Your task to perform on an android device: toggle improve location accuracy Image 0: 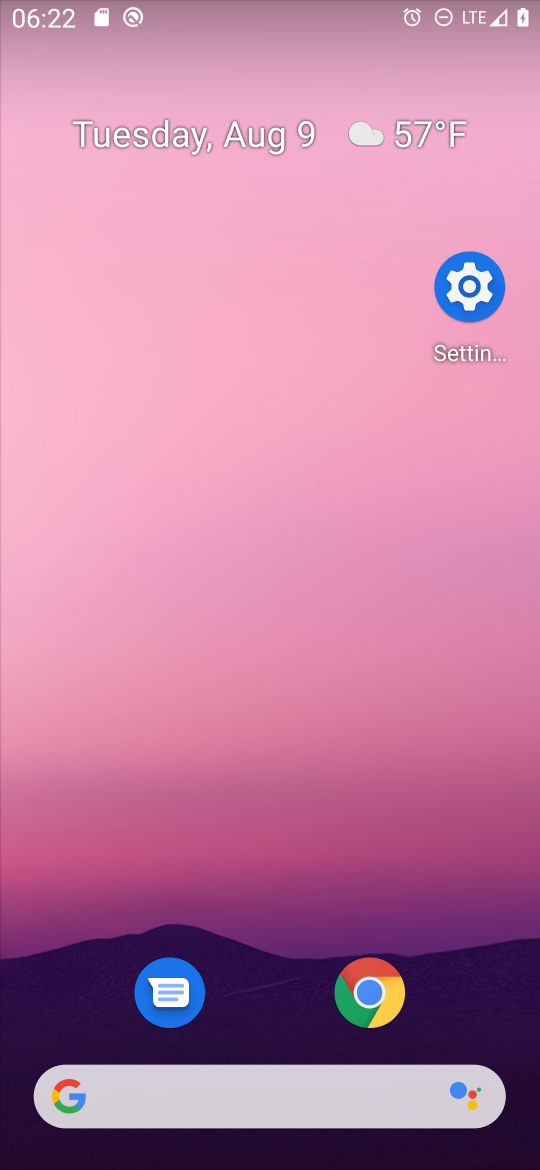
Step 0: drag from (269, 1085) to (351, 341)
Your task to perform on an android device: toggle improve location accuracy Image 1: 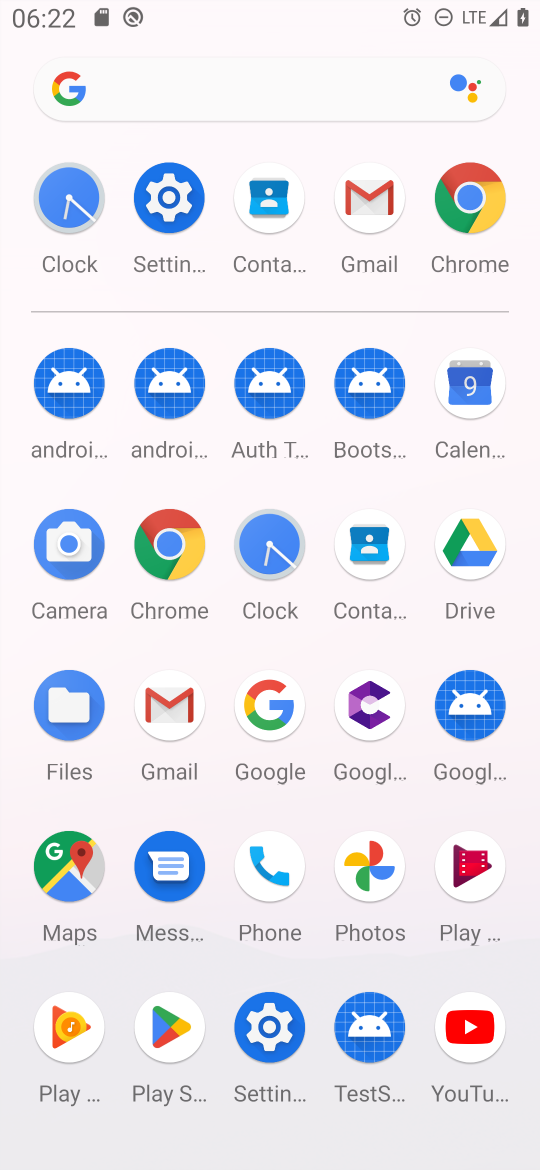
Step 1: click (167, 203)
Your task to perform on an android device: toggle improve location accuracy Image 2: 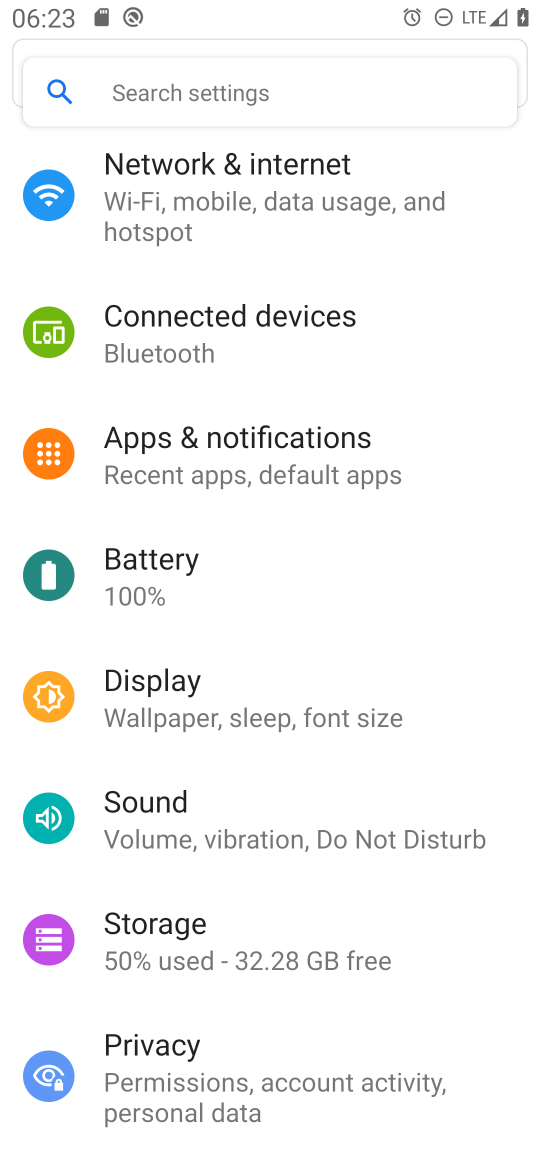
Step 2: drag from (491, 1006) to (442, 446)
Your task to perform on an android device: toggle improve location accuracy Image 3: 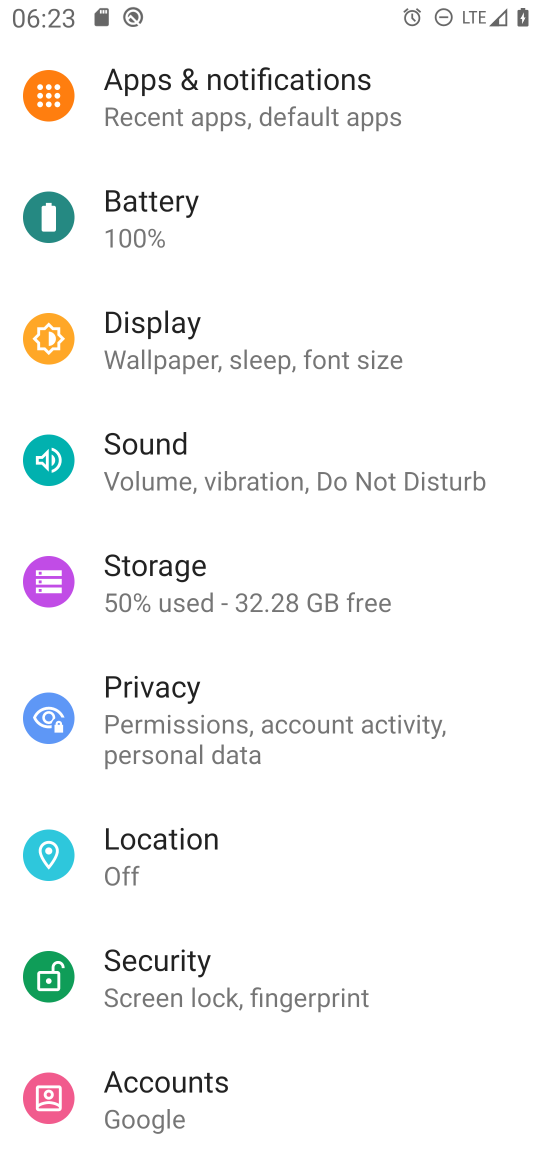
Step 3: click (208, 857)
Your task to perform on an android device: toggle improve location accuracy Image 4: 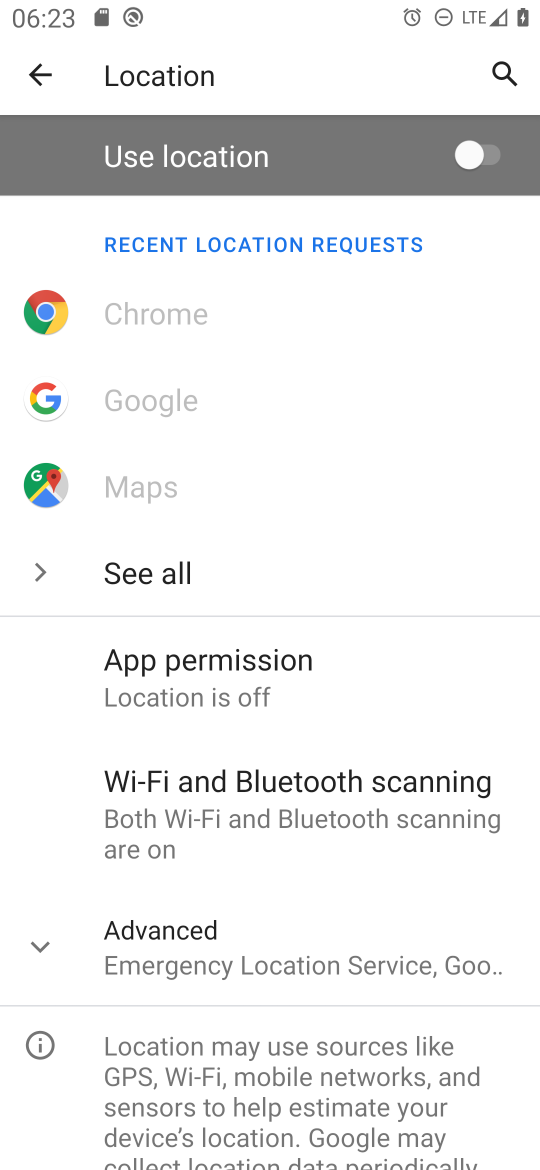
Step 4: click (265, 967)
Your task to perform on an android device: toggle improve location accuracy Image 5: 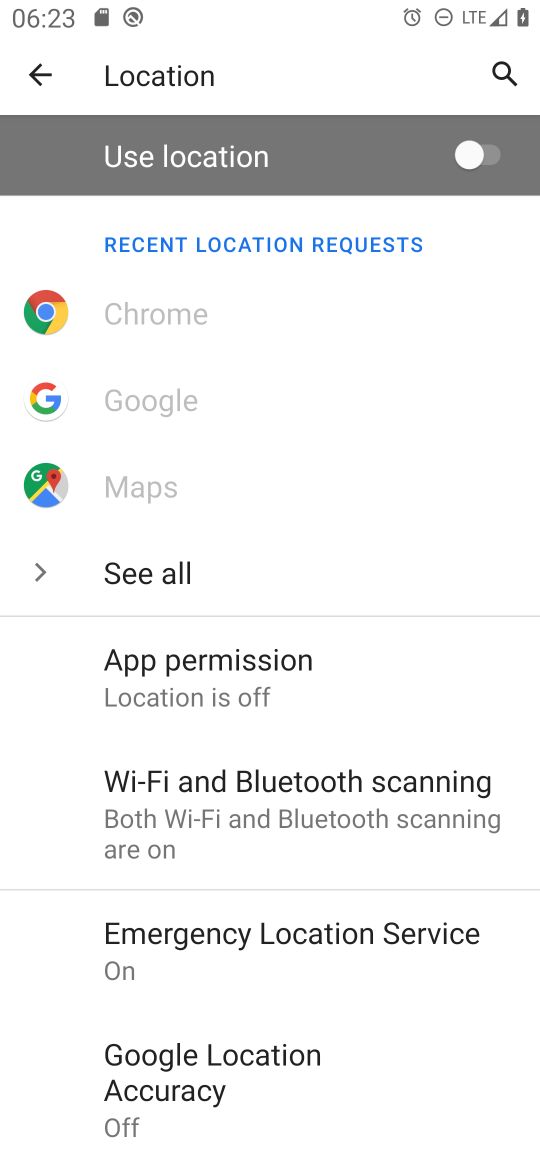
Step 5: click (262, 1071)
Your task to perform on an android device: toggle improve location accuracy Image 6: 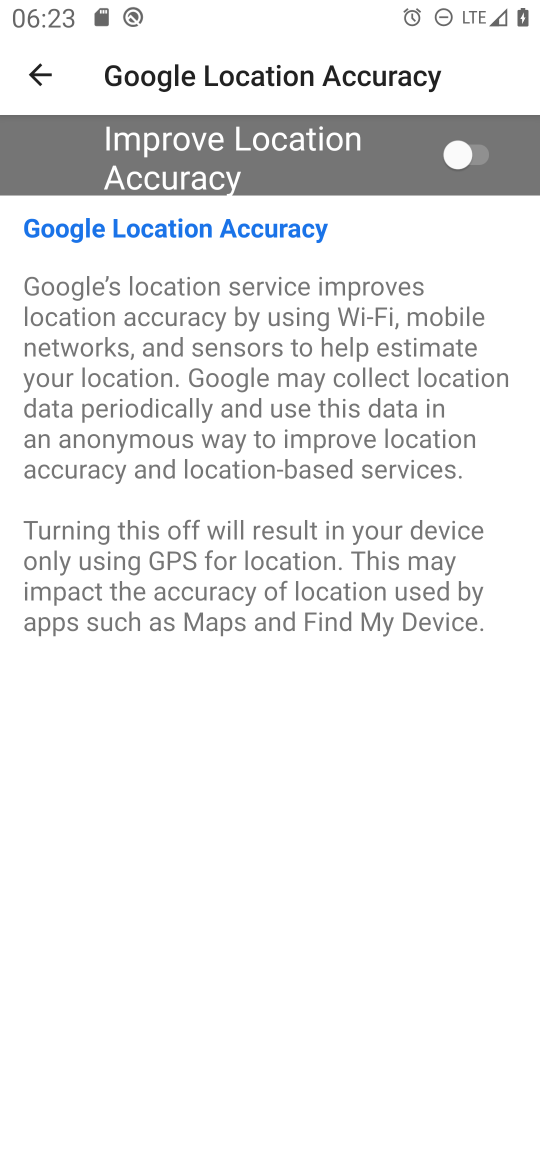
Step 6: click (462, 153)
Your task to perform on an android device: toggle improve location accuracy Image 7: 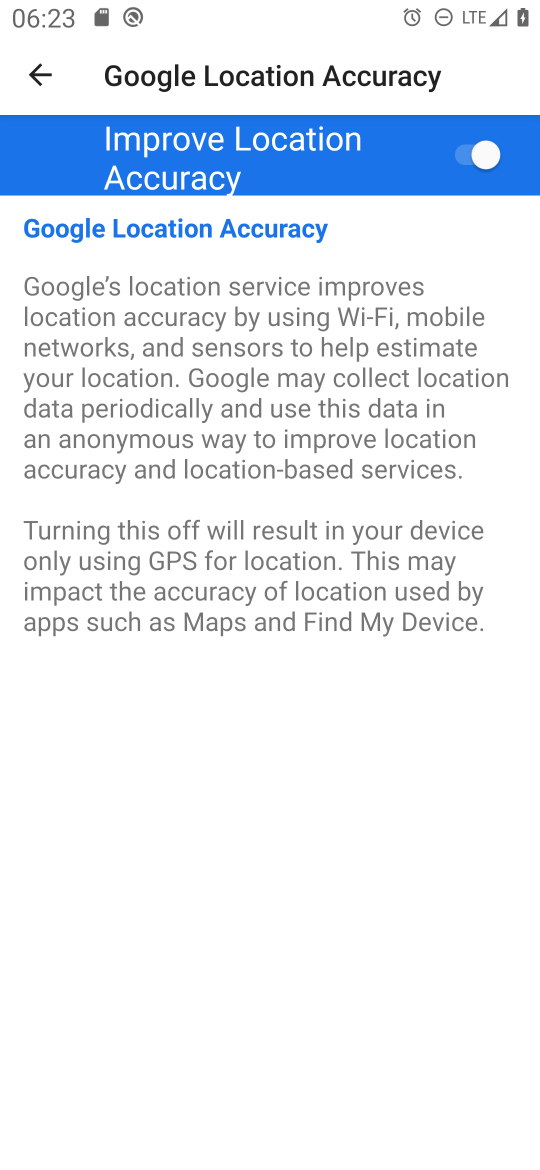
Step 7: task complete